Your task to perform on an android device: open a new tab in the chrome app Image 0: 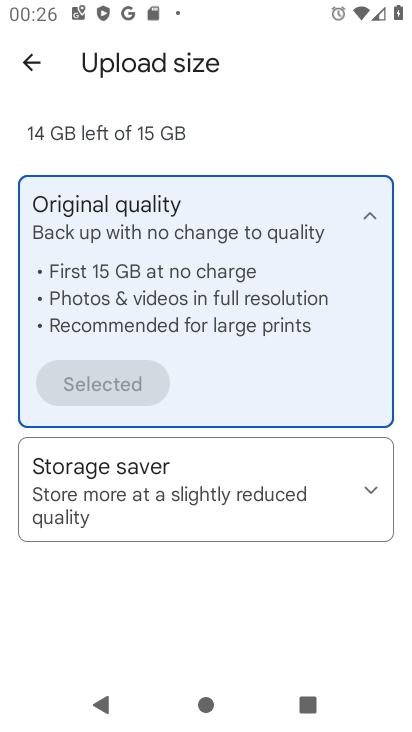
Step 0: press home button
Your task to perform on an android device: open a new tab in the chrome app Image 1: 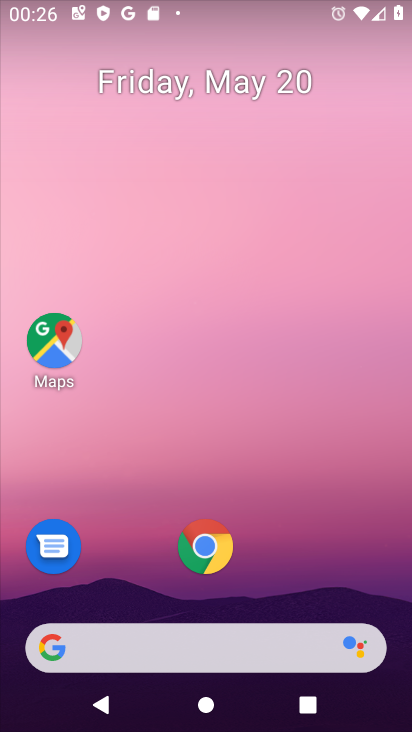
Step 1: click (206, 552)
Your task to perform on an android device: open a new tab in the chrome app Image 2: 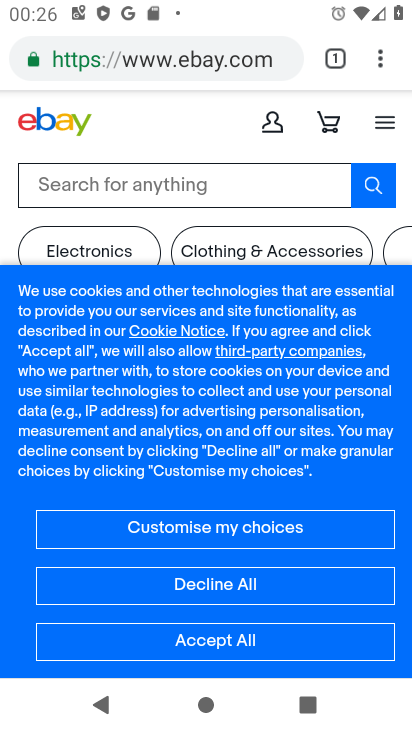
Step 2: task complete